Your task to perform on an android device: move a message to another label in the gmail app Image 0: 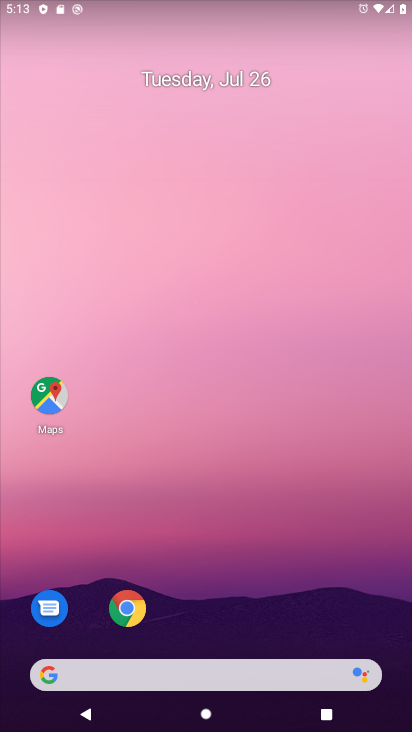
Step 0: drag from (327, 606) to (235, 69)
Your task to perform on an android device: move a message to another label in the gmail app Image 1: 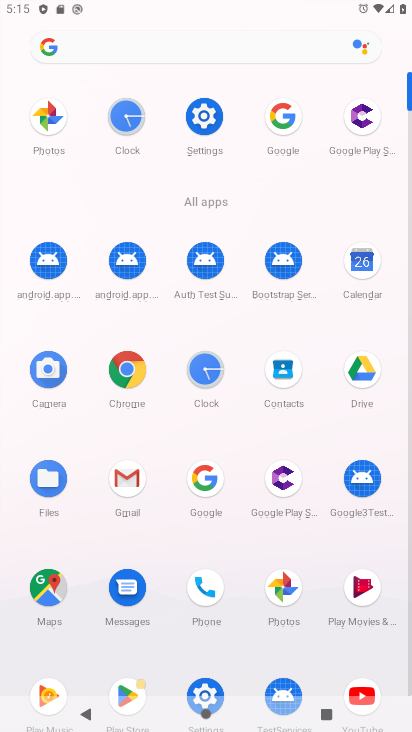
Step 1: click (122, 476)
Your task to perform on an android device: move a message to another label in the gmail app Image 2: 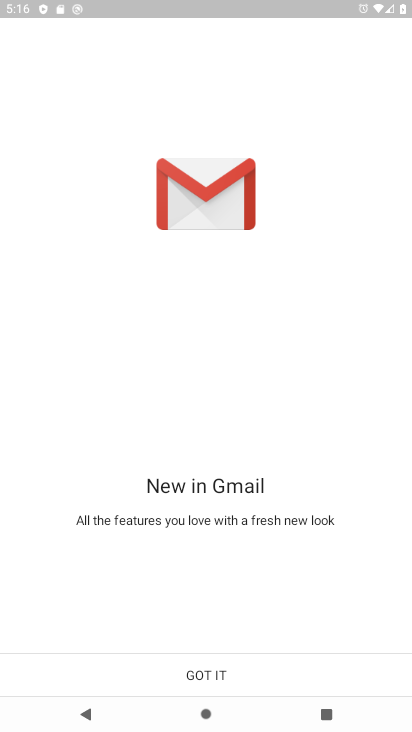
Step 2: click (218, 682)
Your task to perform on an android device: move a message to another label in the gmail app Image 3: 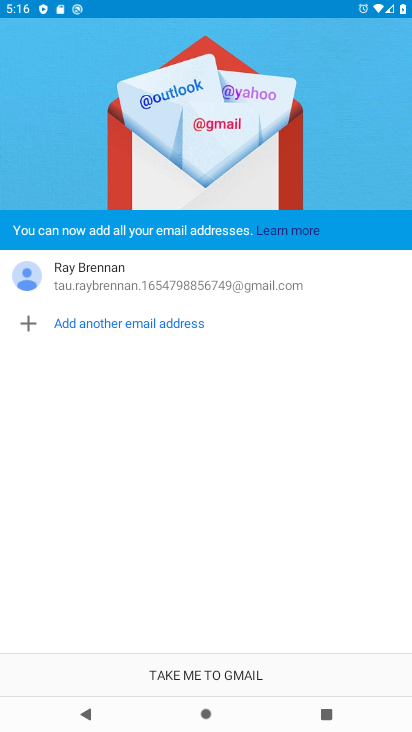
Step 3: click (217, 681)
Your task to perform on an android device: move a message to another label in the gmail app Image 4: 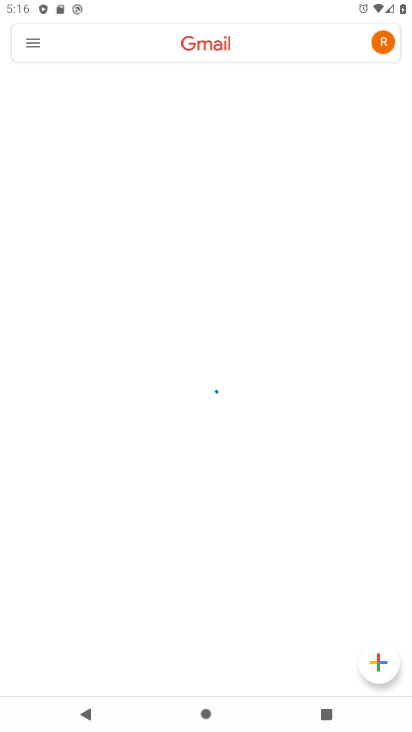
Step 4: task complete